Your task to perform on an android device: open chrome privacy settings Image 0: 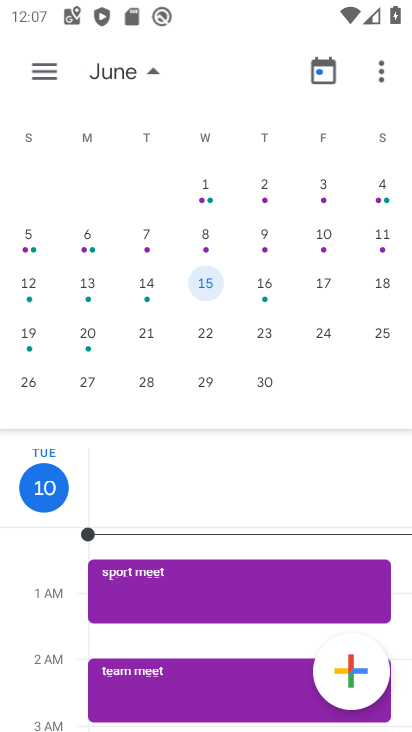
Step 0: drag from (215, 586) to (249, 359)
Your task to perform on an android device: open chrome privacy settings Image 1: 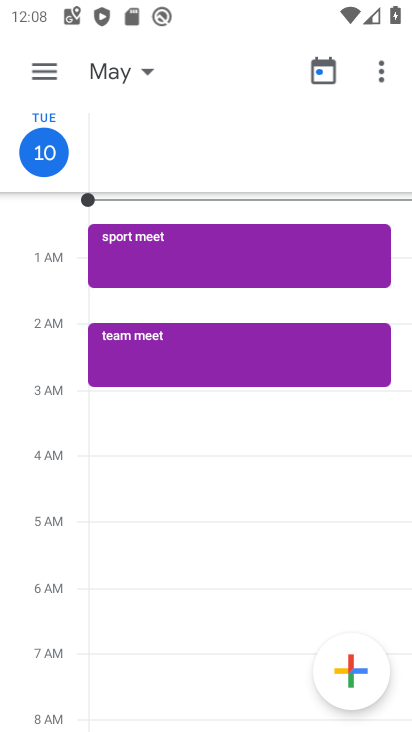
Step 1: drag from (169, 584) to (272, 293)
Your task to perform on an android device: open chrome privacy settings Image 2: 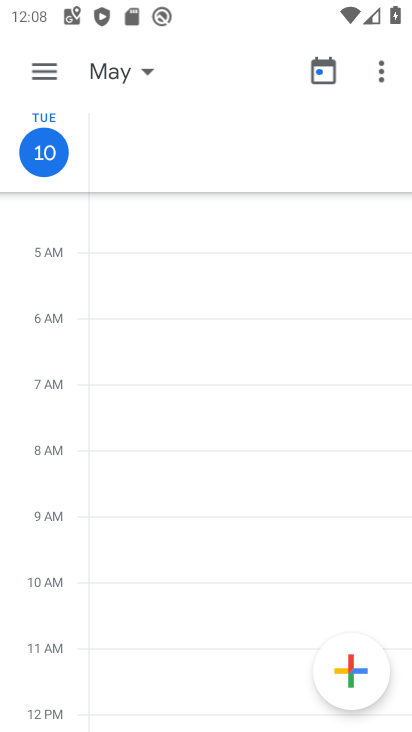
Step 2: press home button
Your task to perform on an android device: open chrome privacy settings Image 3: 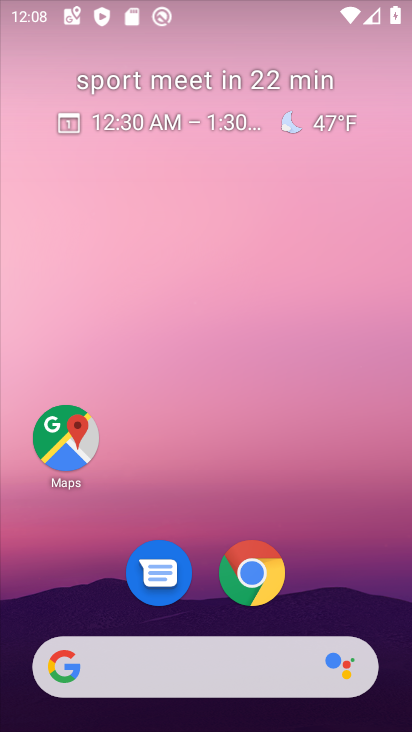
Step 3: drag from (232, 573) to (262, 273)
Your task to perform on an android device: open chrome privacy settings Image 4: 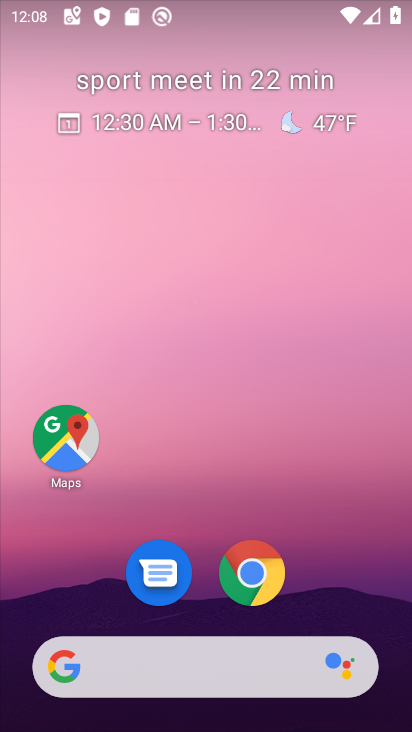
Step 4: drag from (200, 585) to (239, 147)
Your task to perform on an android device: open chrome privacy settings Image 5: 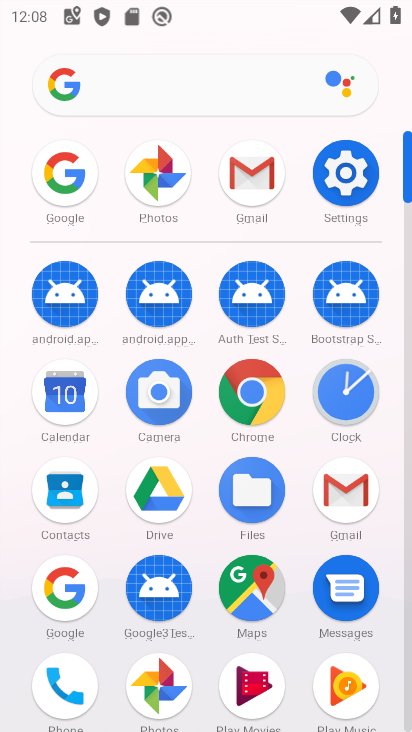
Step 5: click (348, 183)
Your task to perform on an android device: open chrome privacy settings Image 6: 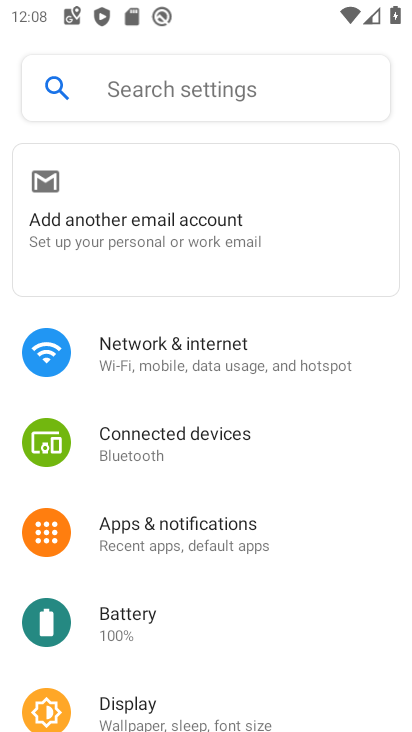
Step 6: drag from (216, 676) to (400, 638)
Your task to perform on an android device: open chrome privacy settings Image 7: 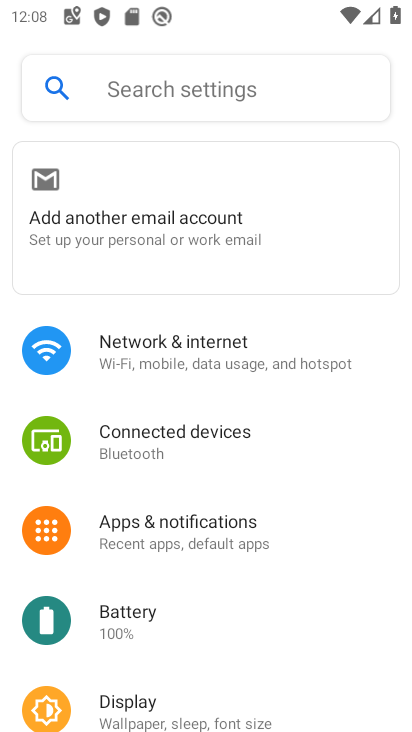
Step 7: press home button
Your task to perform on an android device: open chrome privacy settings Image 8: 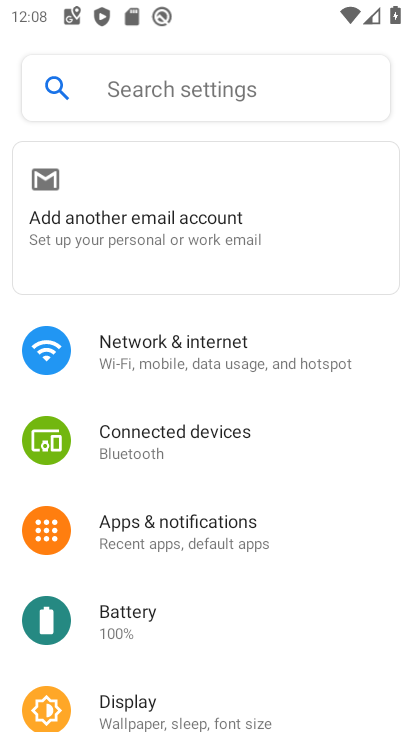
Step 8: click (409, 586)
Your task to perform on an android device: open chrome privacy settings Image 9: 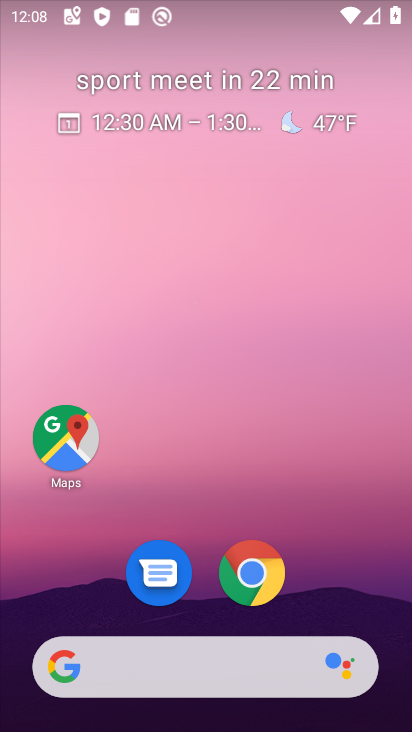
Step 9: click (249, 572)
Your task to perform on an android device: open chrome privacy settings Image 10: 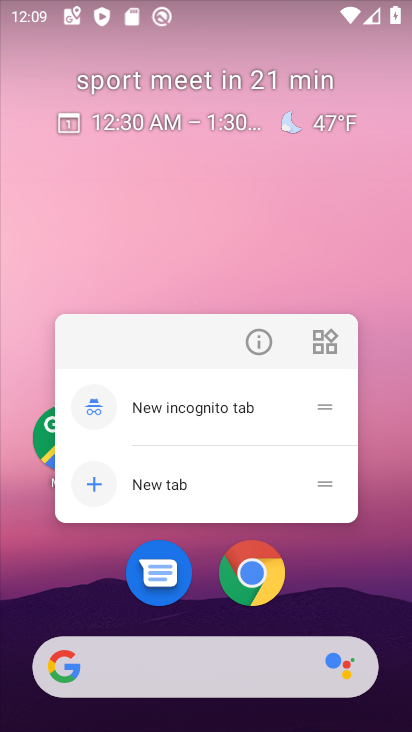
Step 10: click (263, 347)
Your task to perform on an android device: open chrome privacy settings Image 11: 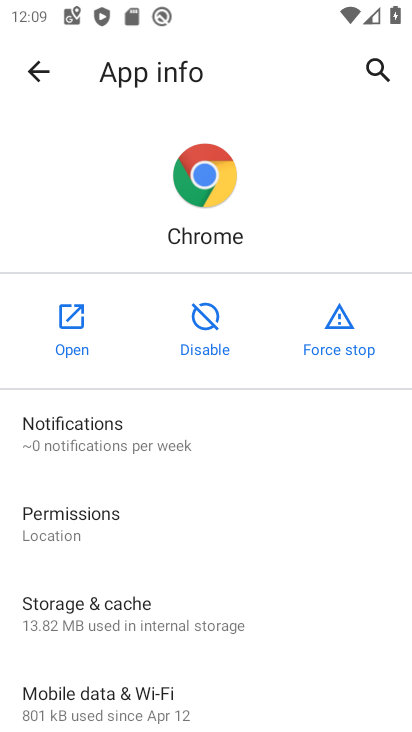
Step 11: click (79, 328)
Your task to perform on an android device: open chrome privacy settings Image 12: 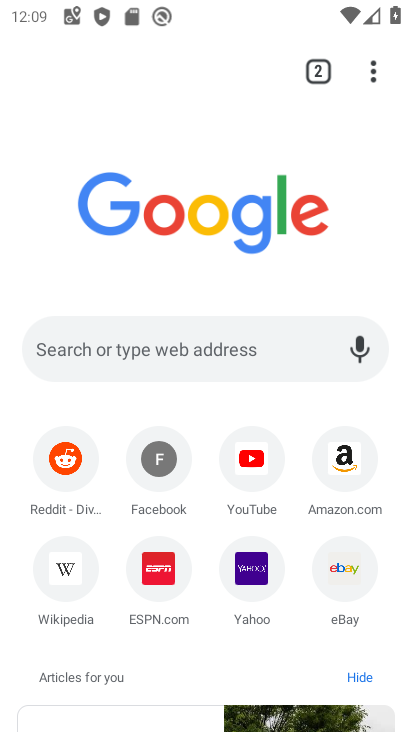
Step 12: click (379, 69)
Your task to perform on an android device: open chrome privacy settings Image 13: 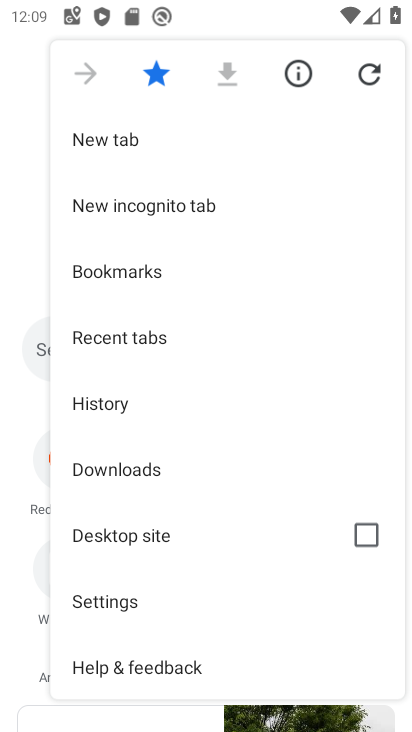
Step 13: click (84, 618)
Your task to perform on an android device: open chrome privacy settings Image 14: 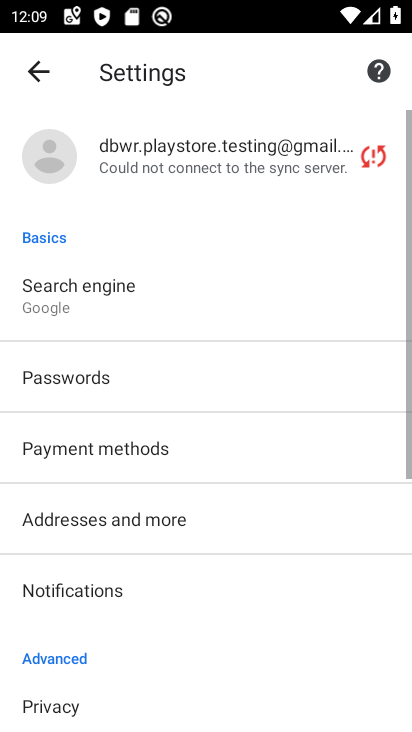
Step 14: drag from (159, 527) to (192, 316)
Your task to perform on an android device: open chrome privacy settings Image 15: 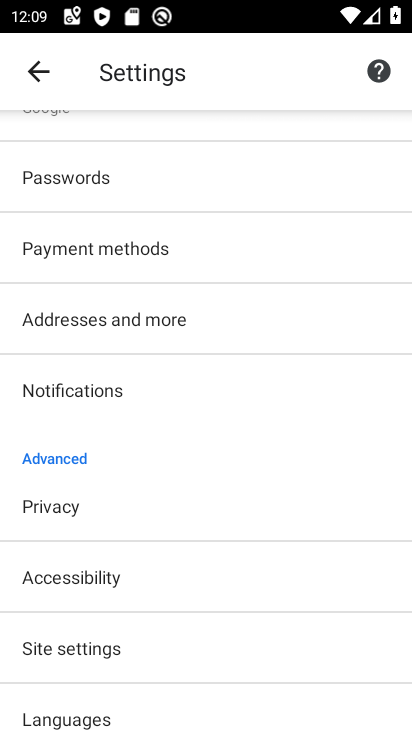
Step 15: drag from (209, 302) to (231, 429)
Your task to perform on an android device: open chrome privacy settings Image 16: 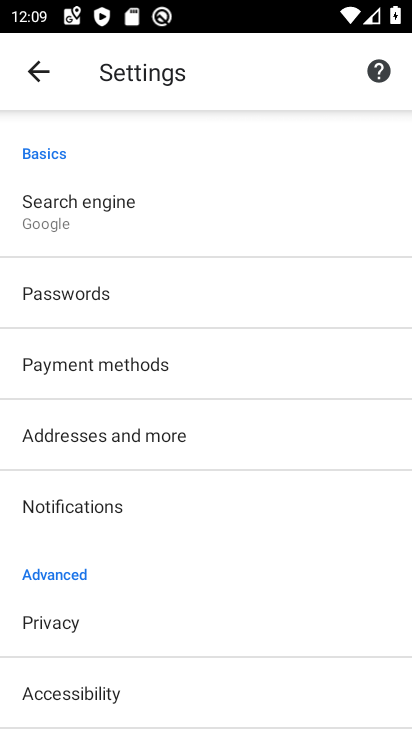
Step 16: drag from (203, 521) to (218, 364)
Your task to perform on an android device: open chrome privacy settings Image 17: 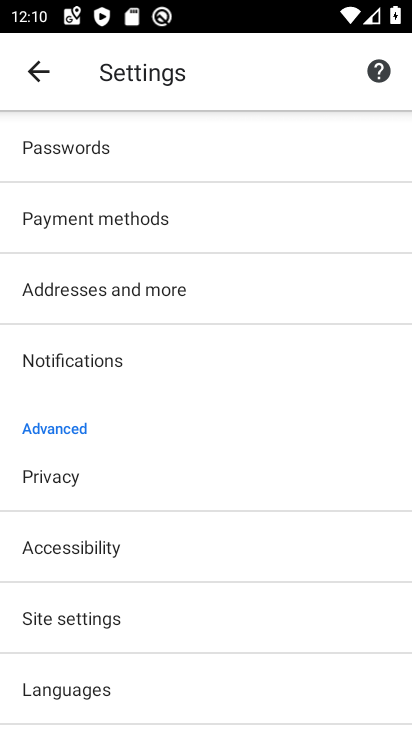
Step 17: drag from (177, 514) to (245, 301)
Your task to perform on an android device: open chrome privacy settings Image 18: 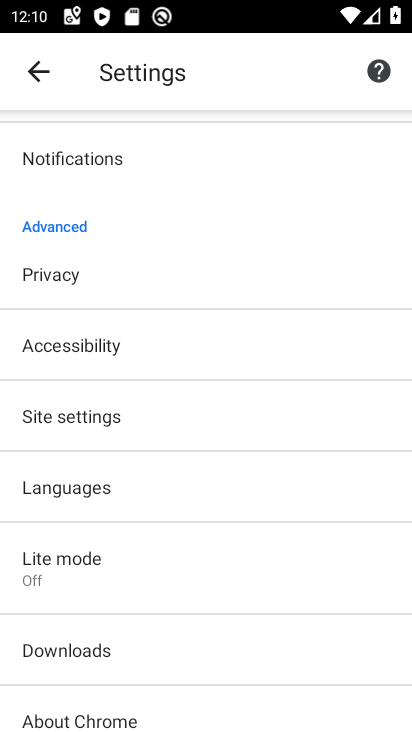
Step 18: click (90, 272)
Your task to perform on an android device: open chrome privacy settings Image 19: 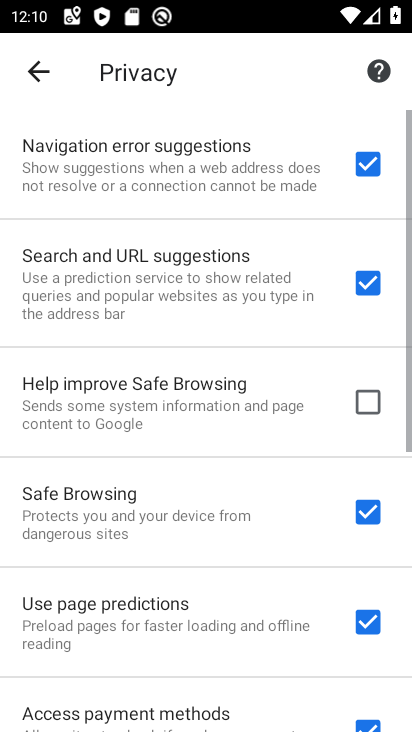
Step 19: task complete